Your task to perform on an android device: Go to internet settings Image 0: 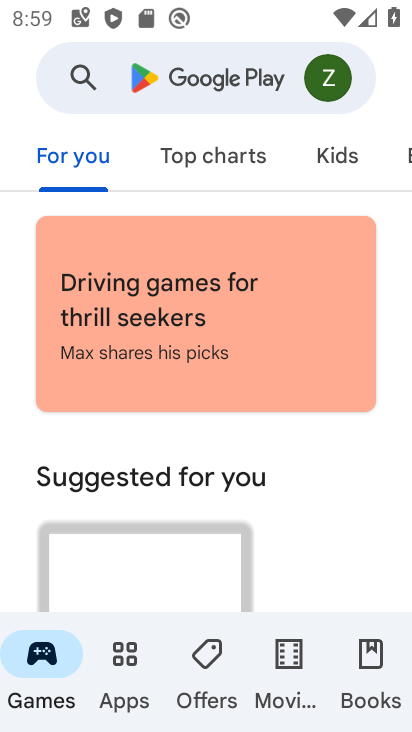
Step 0: press back button
Your task to perform on an android device: Go to internet settings Image 1: 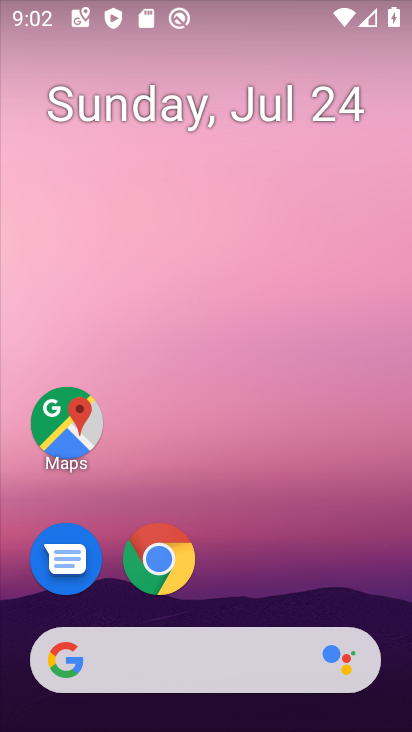
Step 1: drag from (248, 568) to (346, 33)
Your task to perform on an android device: Go to internet settings Image 2: 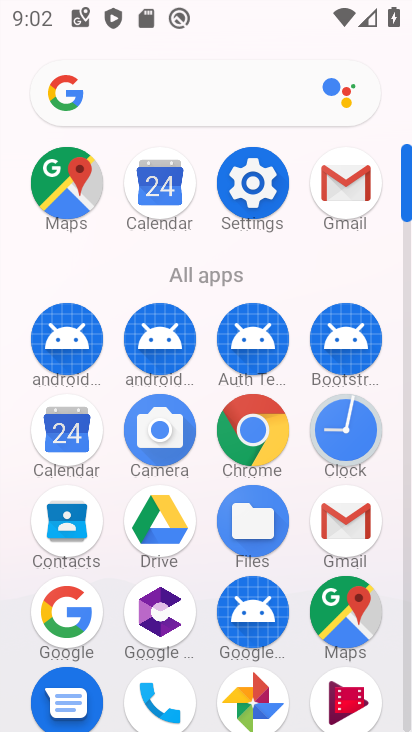
Step 2: click (249, 173)
Your task to perform on an android device: Go to internet settings Image 3: 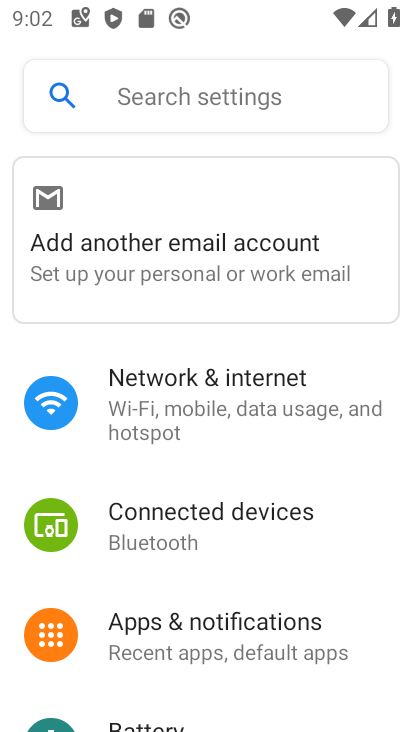
Step 3: click (168, 401)
Your task to perform on an android device: Go to internet settings Image 4: 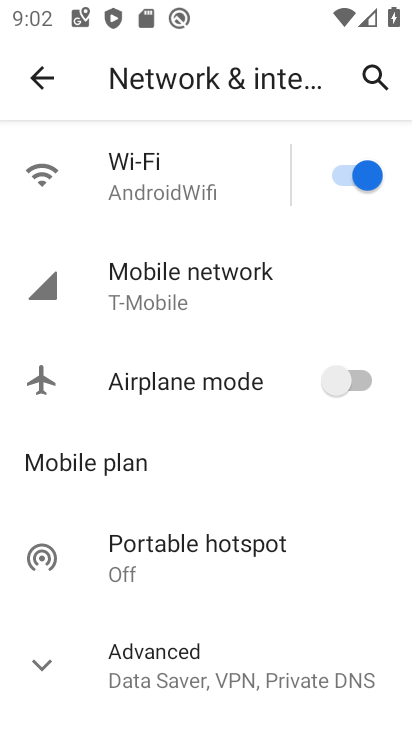
Step 4: task complete